Your task to perform on an android device: What's on my calendar tomorrow? Image 0: 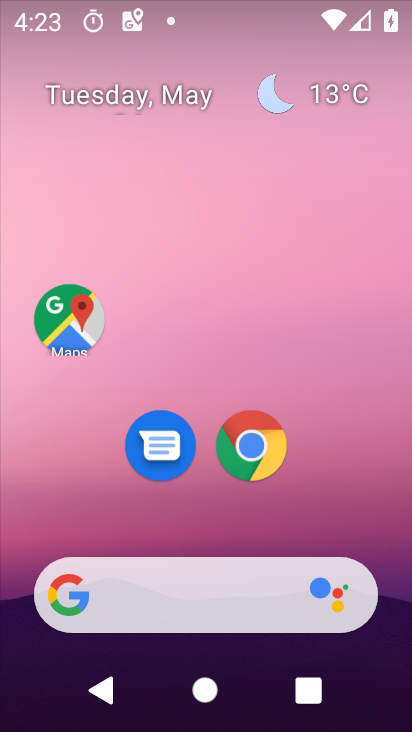
Step 0: press home button
Your task to perform on an android device: What's on my calendar tomorrow? Image 1: 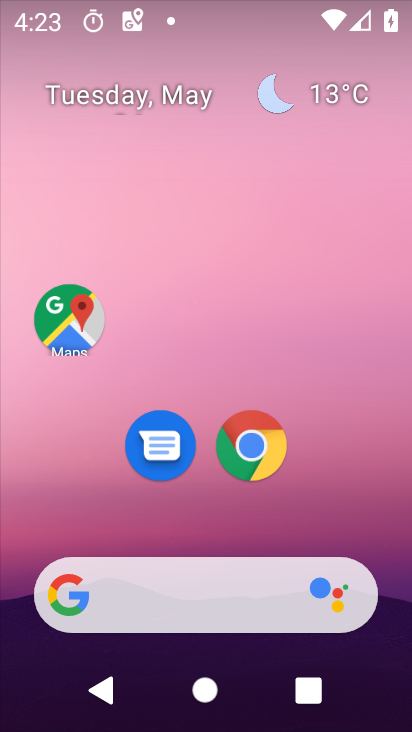
Step 1: drag from (211, 519) to (238, 69)
Your task to perform on an android device: What's on my calendar tomorrow? Image 2: 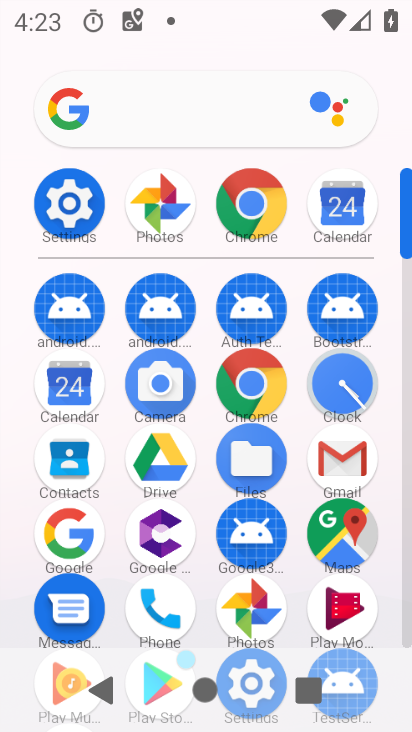
Step 2: click (67, 380)
Your task to perform on an android device: What's on my calendar tomorrow? Image 3: 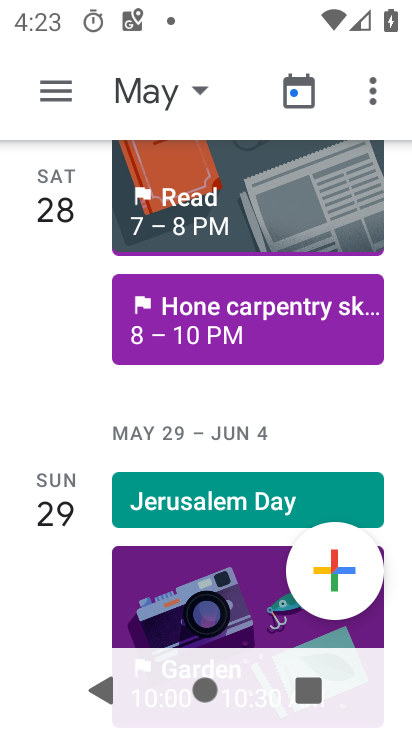
Step 3: click (66, 559)
Your task to perform on an android device: What's on my calendar tomorrow? Image 4: 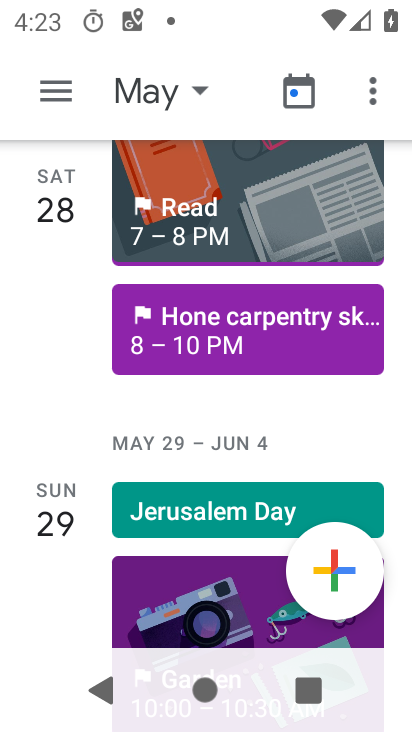
Step 4: click (195, 92)
Your task to perform on an android device: What's on my calendar tomorrow? Image 5: 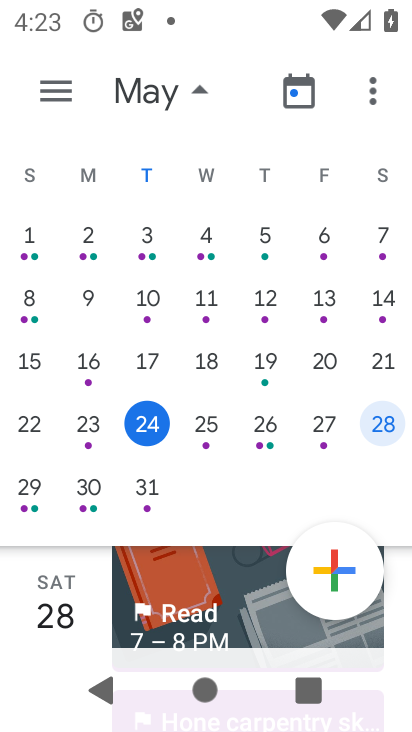
Step 5: click (141, 420)
Your task to perform on an android device: What's on my calendar tomorrow? Image 6: 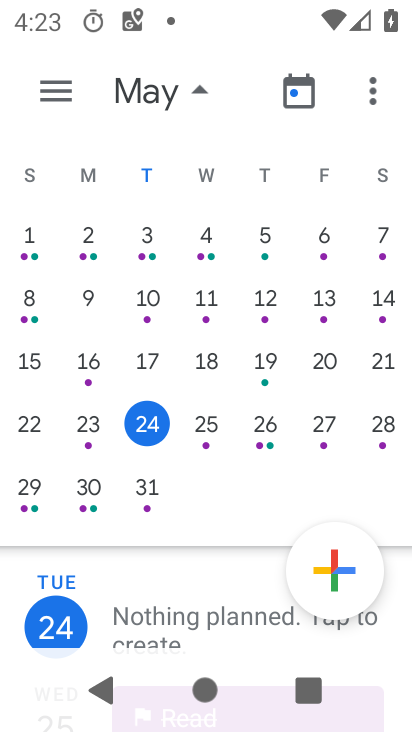
Step 6: drag from (96, 587) to (111, 269)
Your task to perform on an android device: What's on my calendar tomorrow? Image 7: 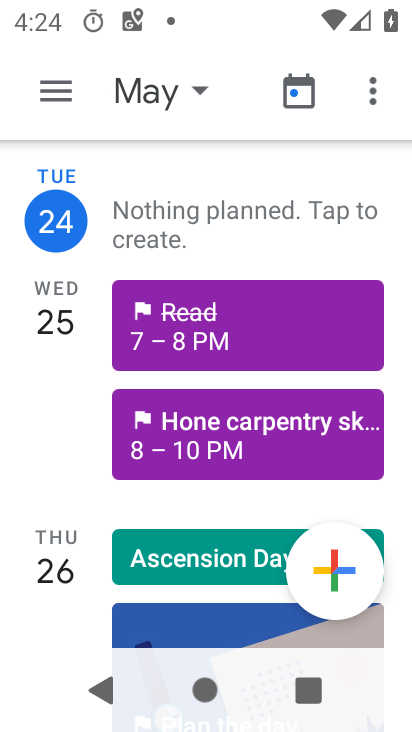
Step 7: click (92, 222)
Your task to perform on an android device: What's on my calendar tomorrow? Image 8: 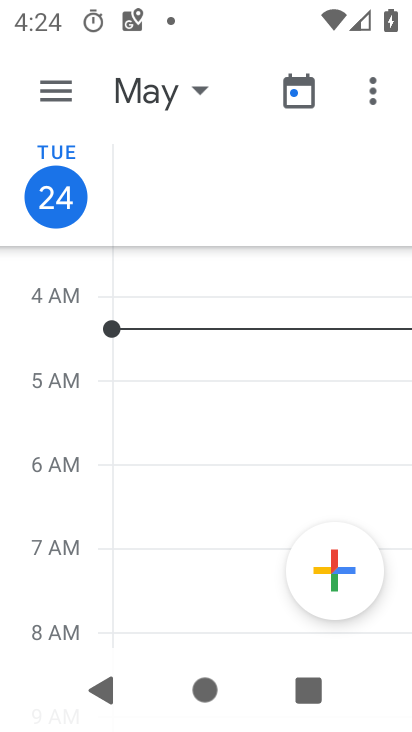
Step 8: task complete